Your task to perform on an android device: Go to eBay Image 0: 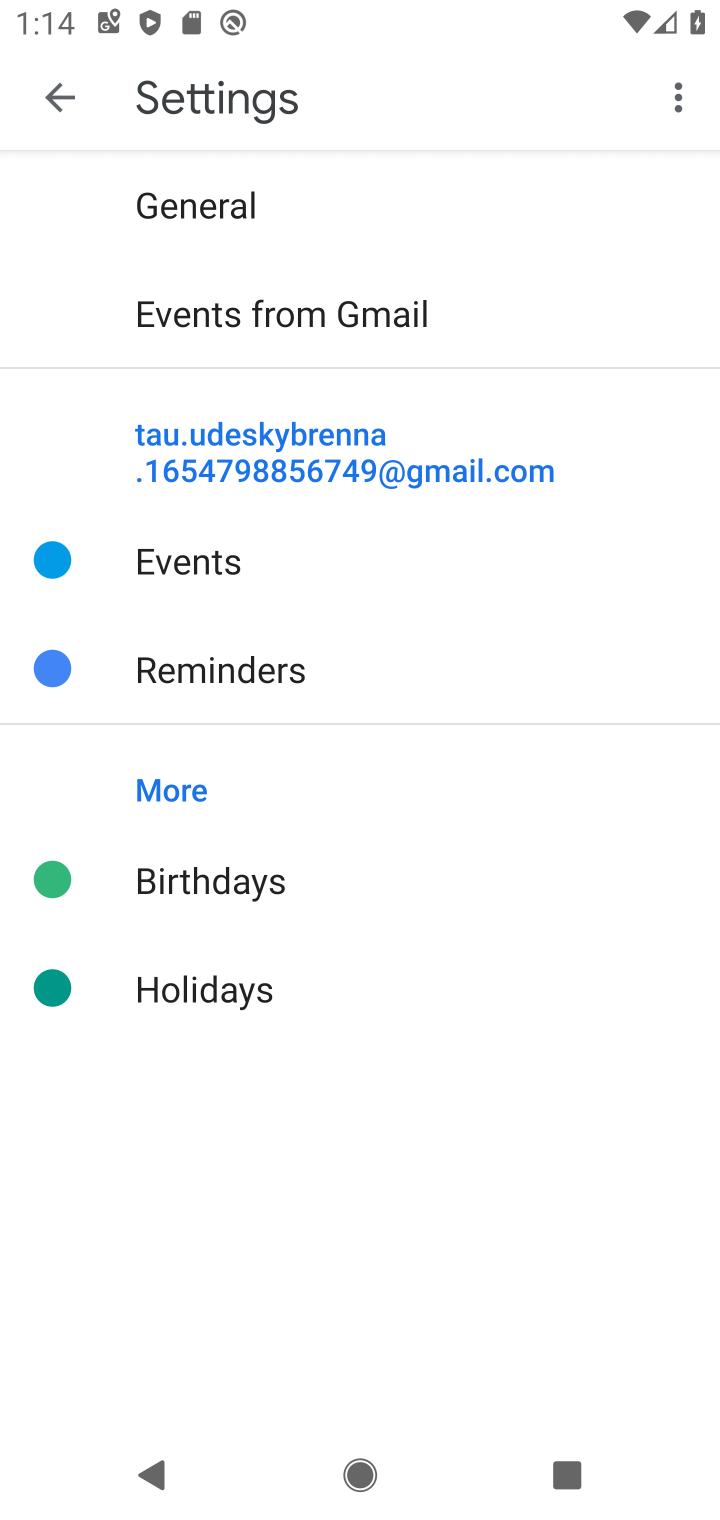
Step 0: press back button
Your task to perform on an android device: Go to eBay Image 1: 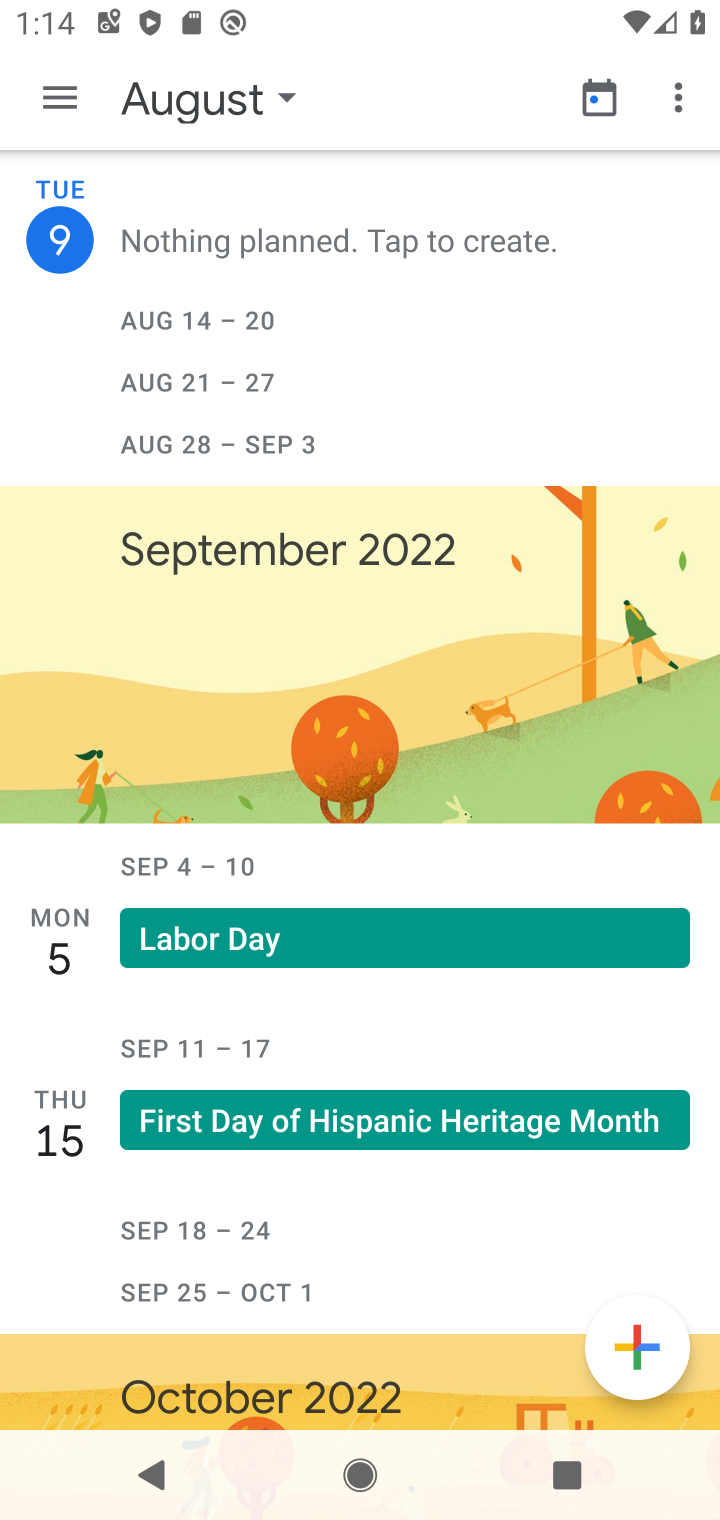
Step 1: press back button
Your task to perform on an android device: Go to eBay Image 2: 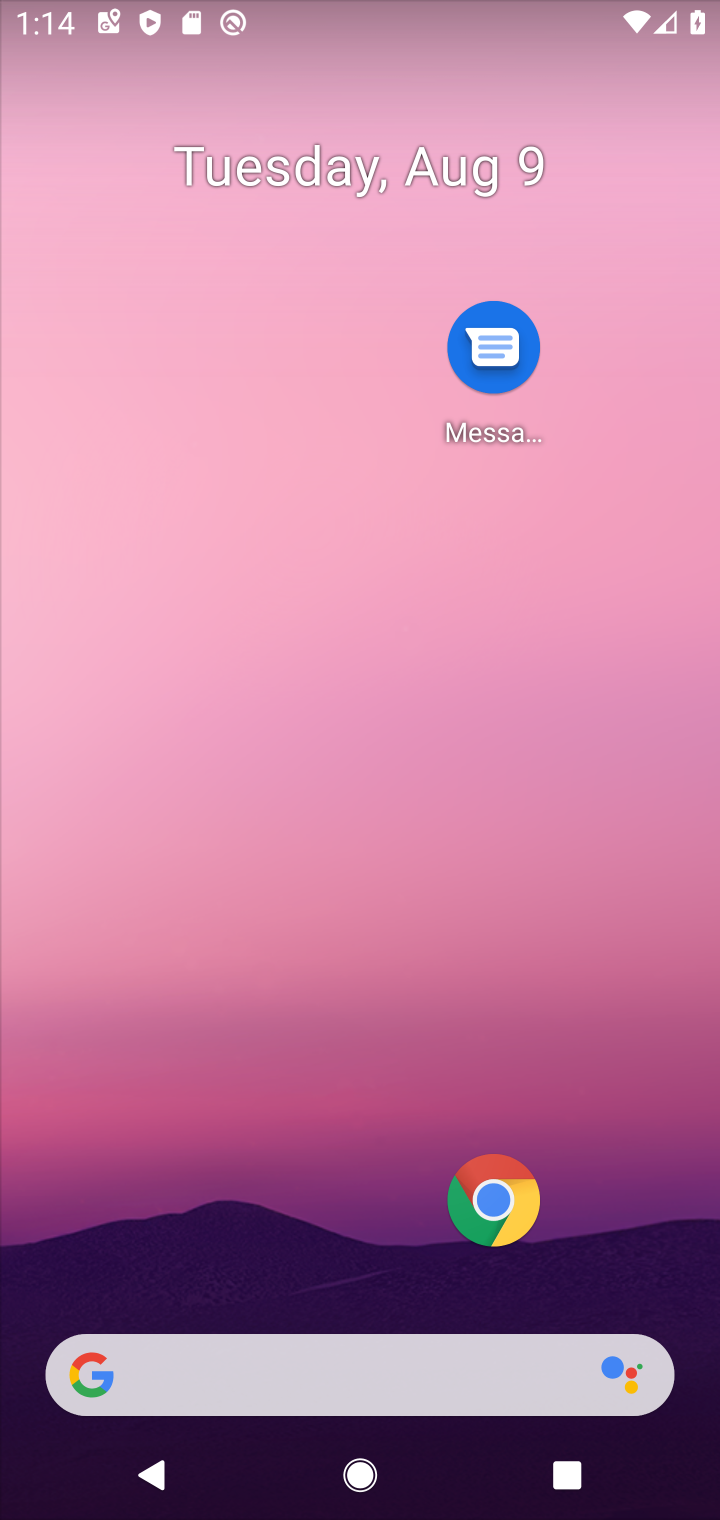
Step 2: click (503, 1203)
Your task to perform on an android device: Go to eBay Image 3: 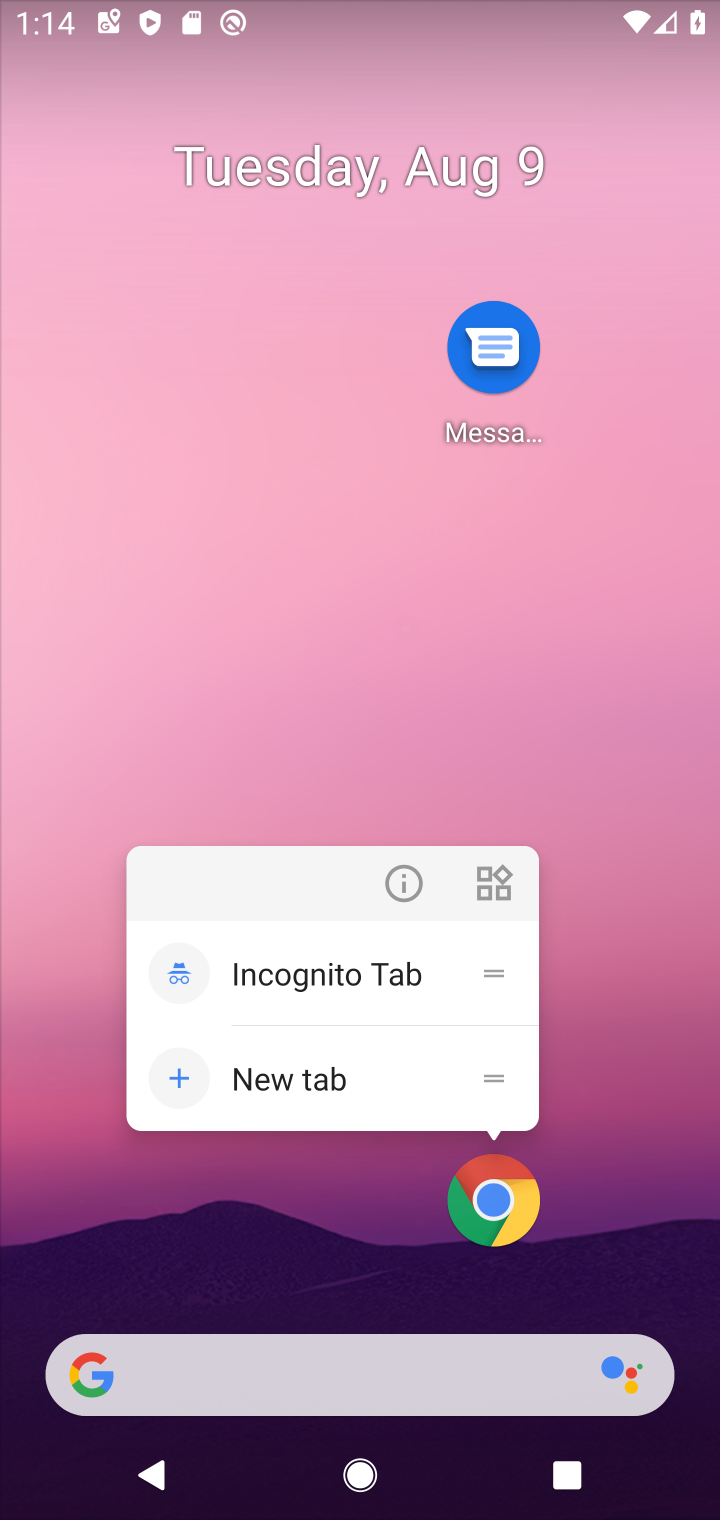
Step 3: click (500, 1179)
Your task to perform on an android device: Go to eBay Image 4: 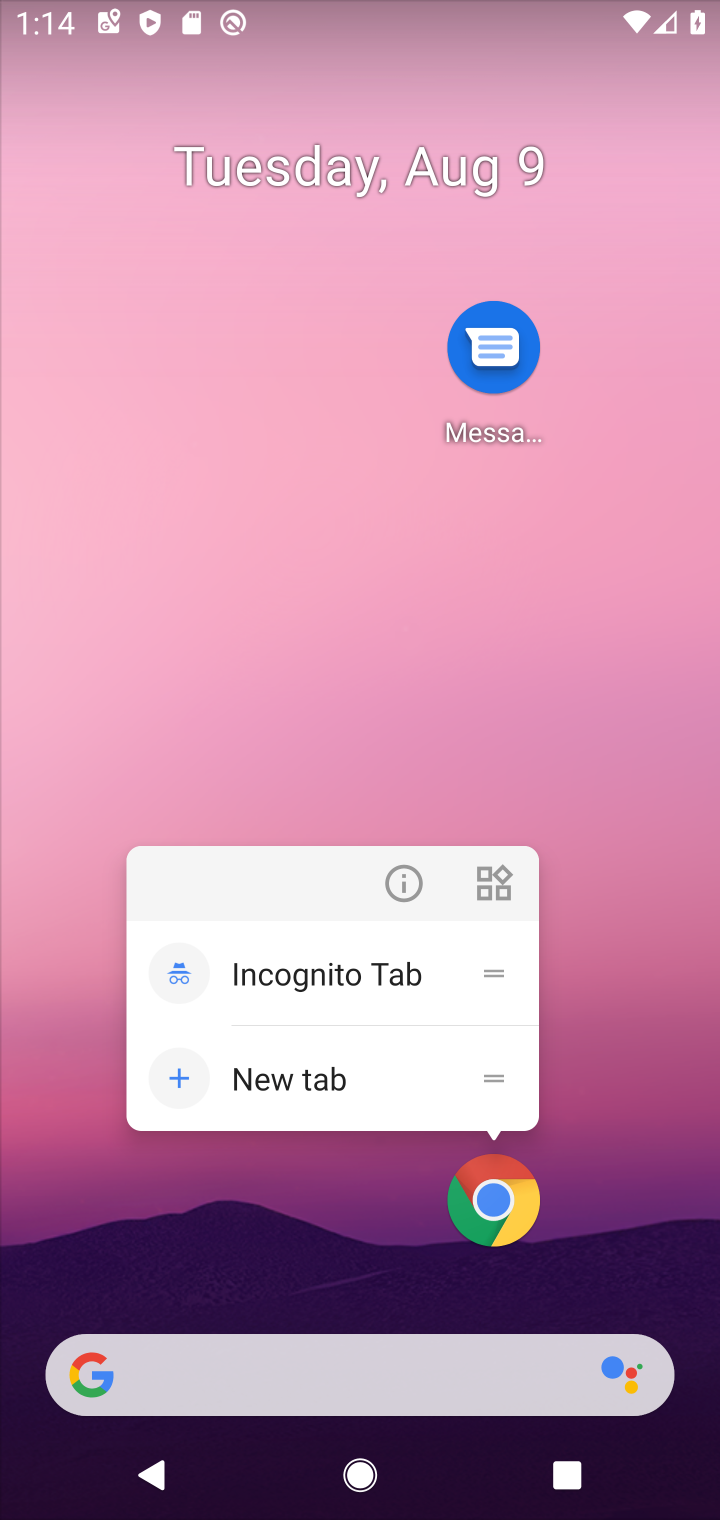
Step 4: click (481, 1198)
Your task to perform on an android device: Go to eBay Image 5: 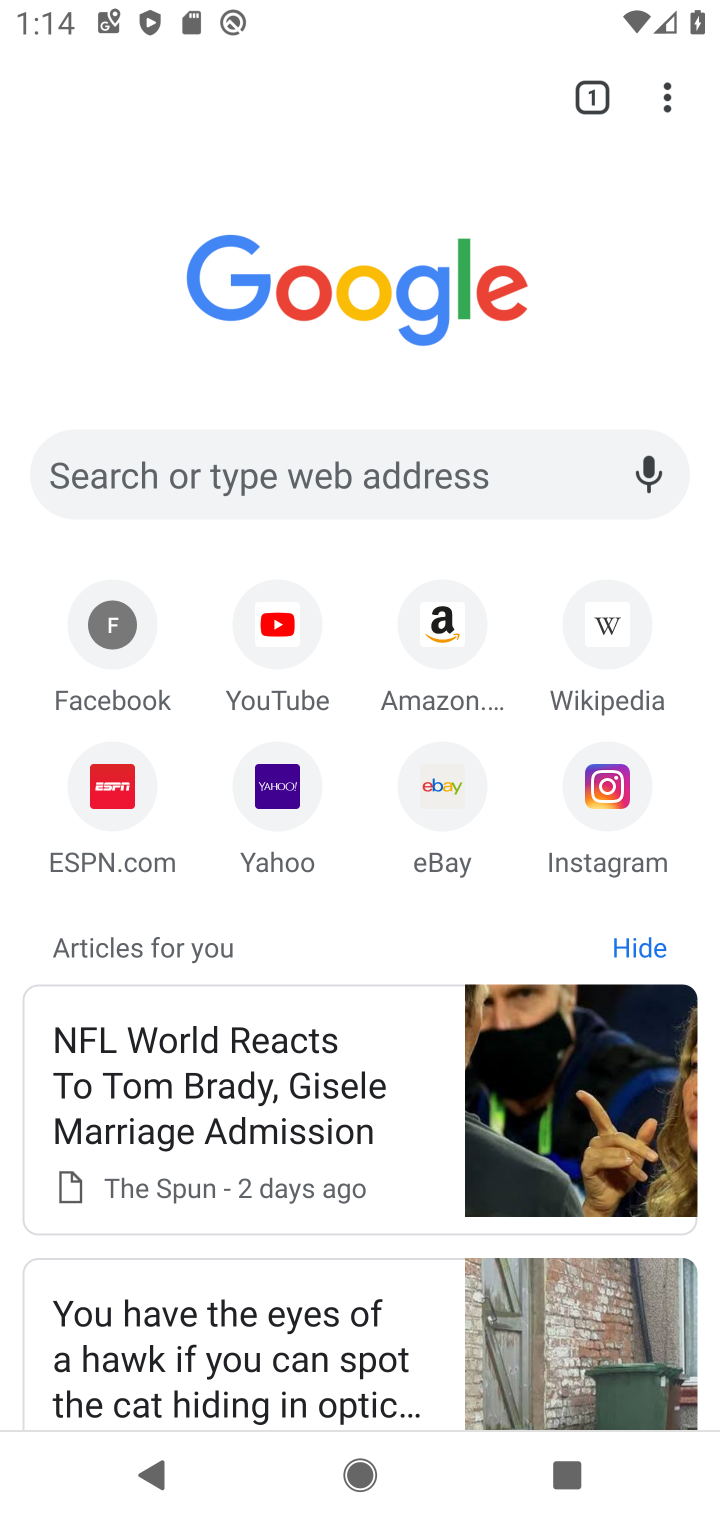
Step 5: click (494, 1202)
Your task to perform on an android device: Go to eBay Image 6: 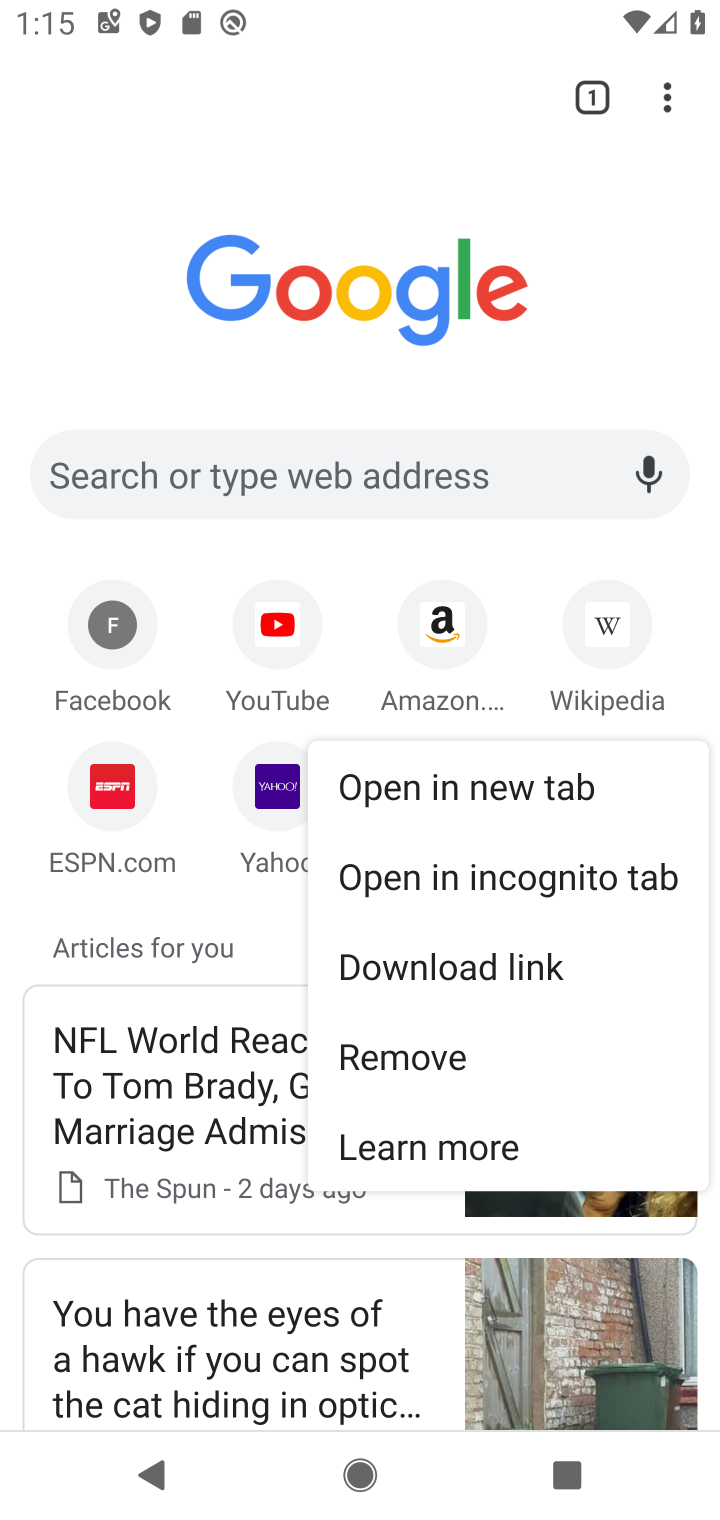
Step 6: click (256, 920)
Your task to perform on an android device: Go to eBay Image 7: 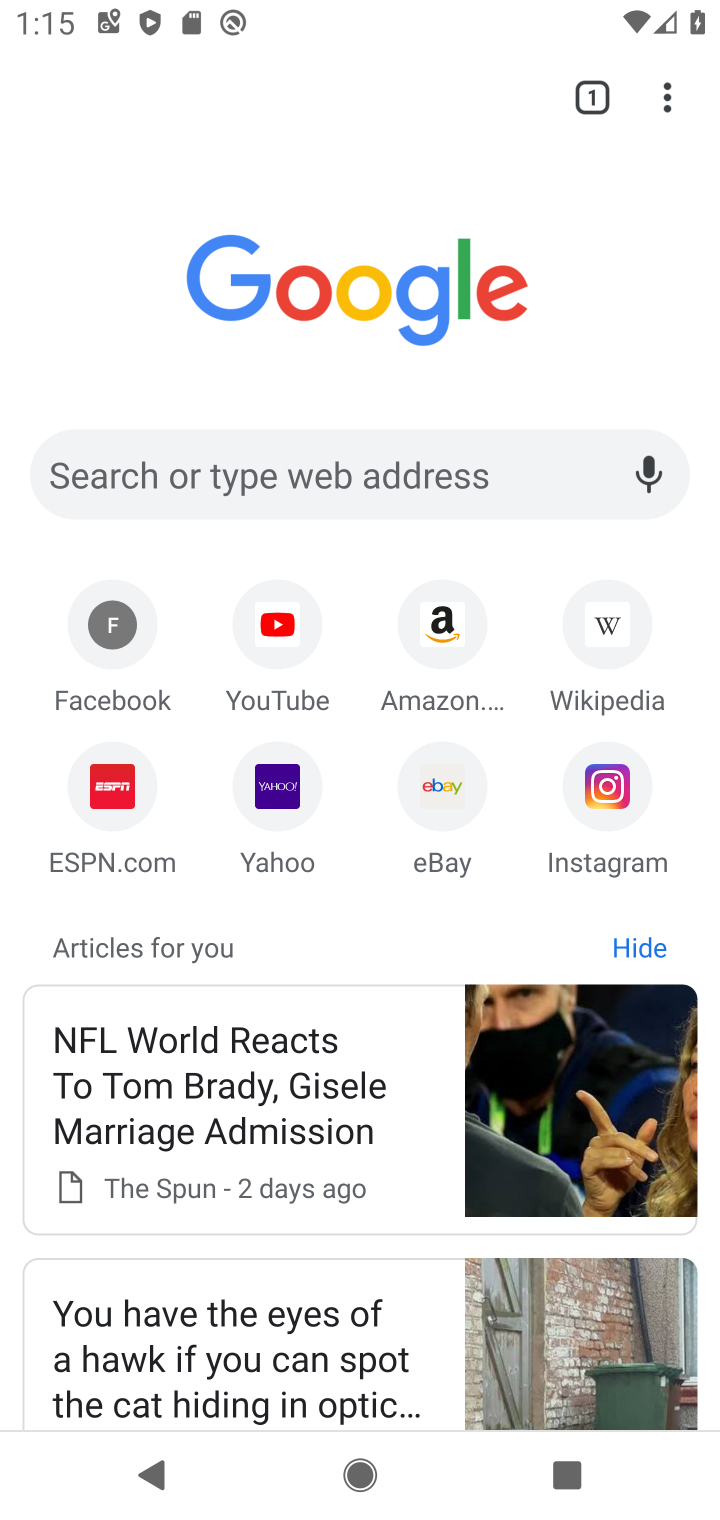
Step 7: click (438, 792)
Your task to perform on an android device: Go to eBay Image 8: 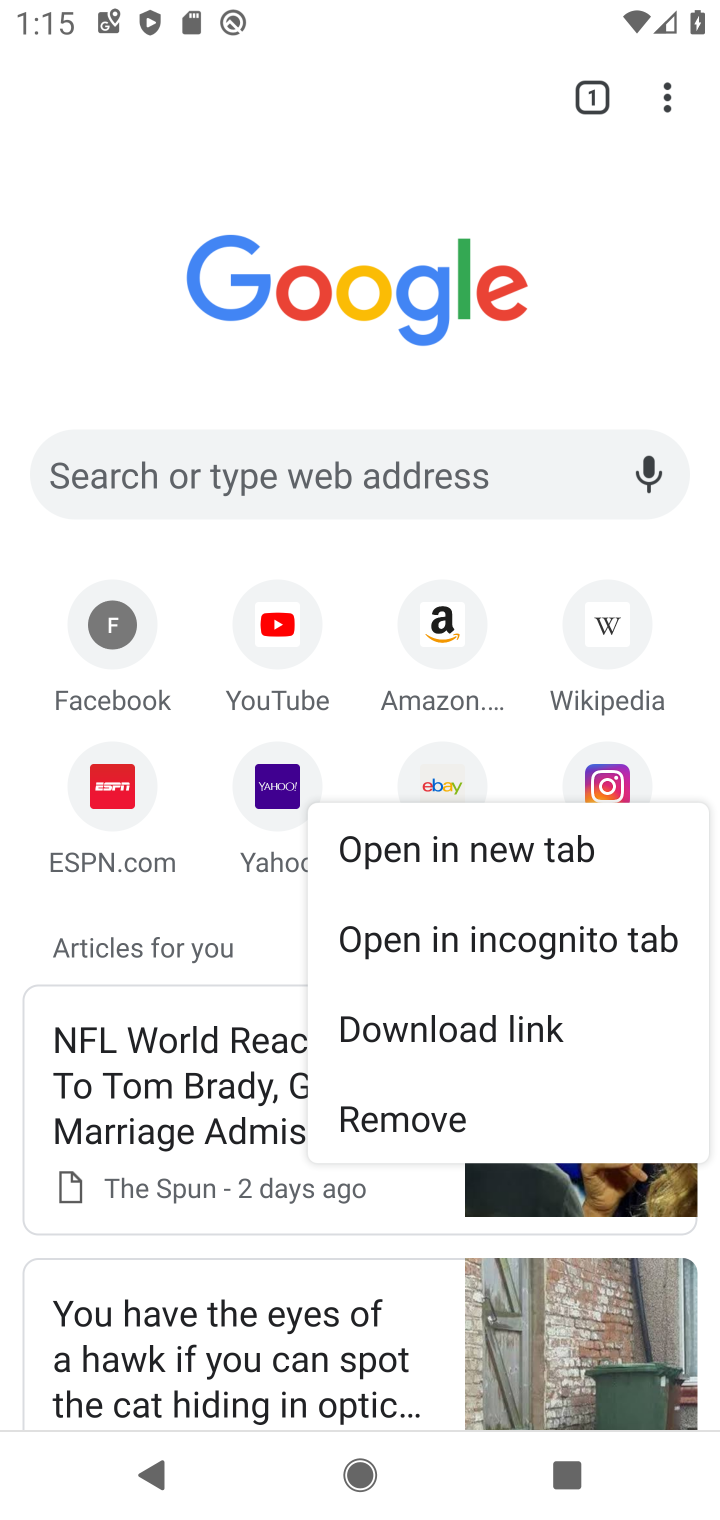
Step 8: click (436, 761)
Your task to perform on an android device: Go to eBay Image 9: 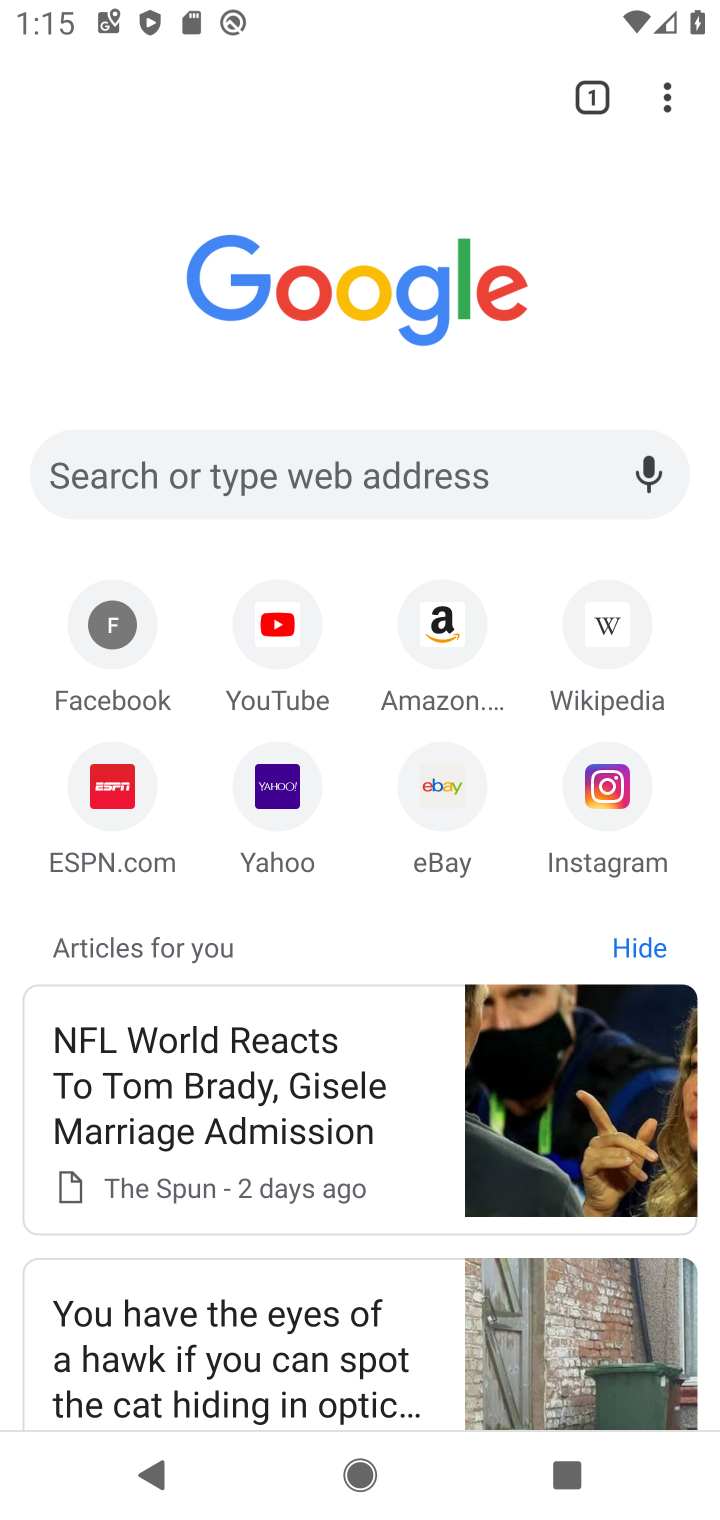
Step 9: click (442, 808)
Your task to perform on an android device: Go to eBay Image 10: 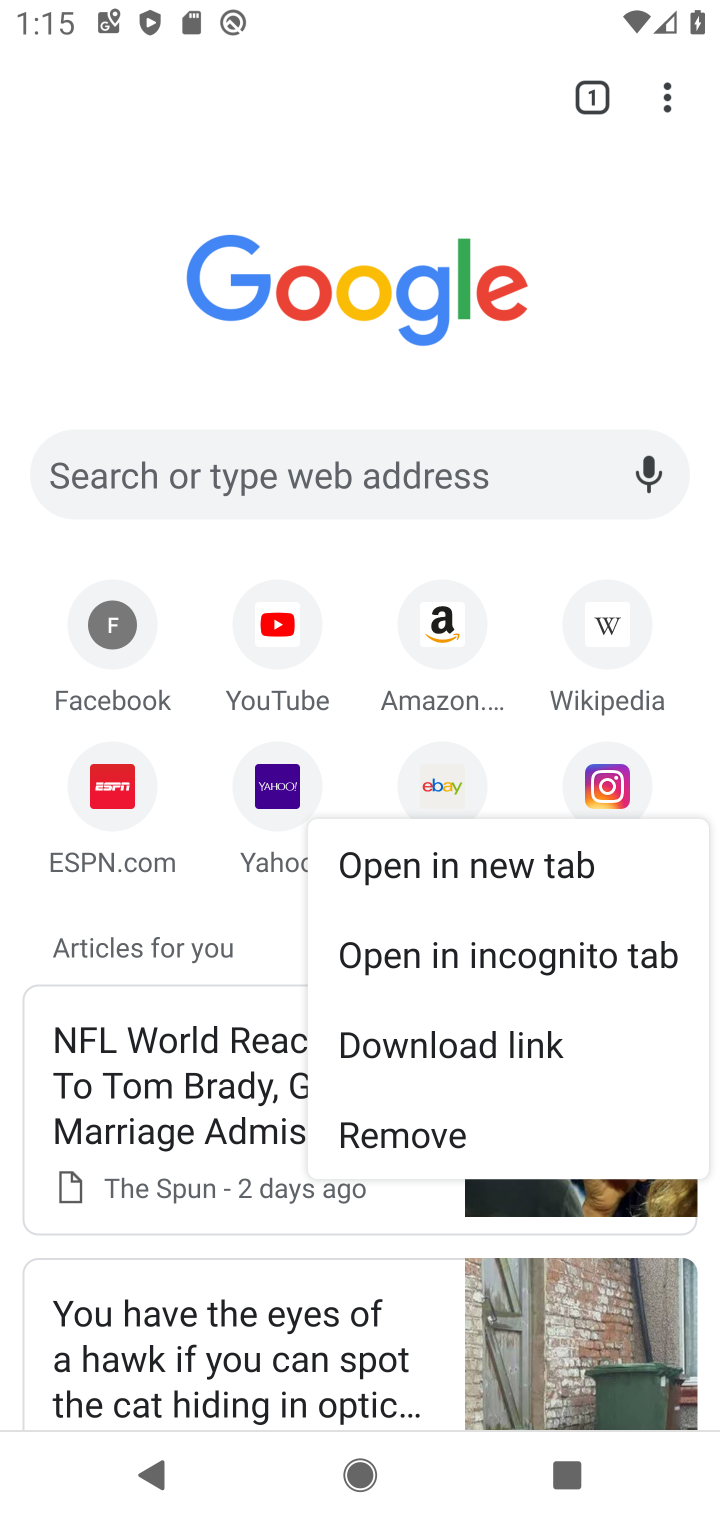
Step 10: click (434, 787)
Your task to perform on an android device: Go to eBay Image 11: 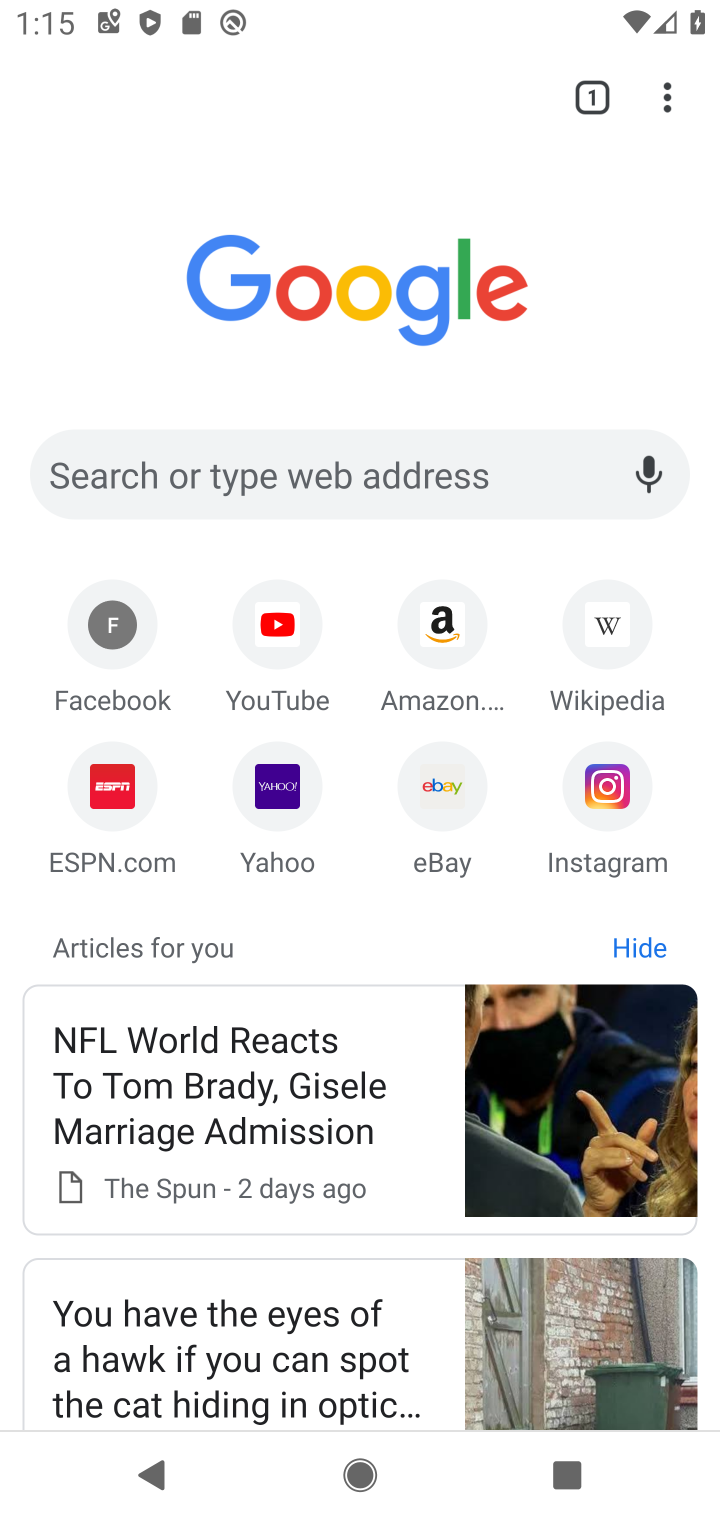
Step 11: click (439, 797)
Your task to perform on an android device: Go to eBay Image 12: 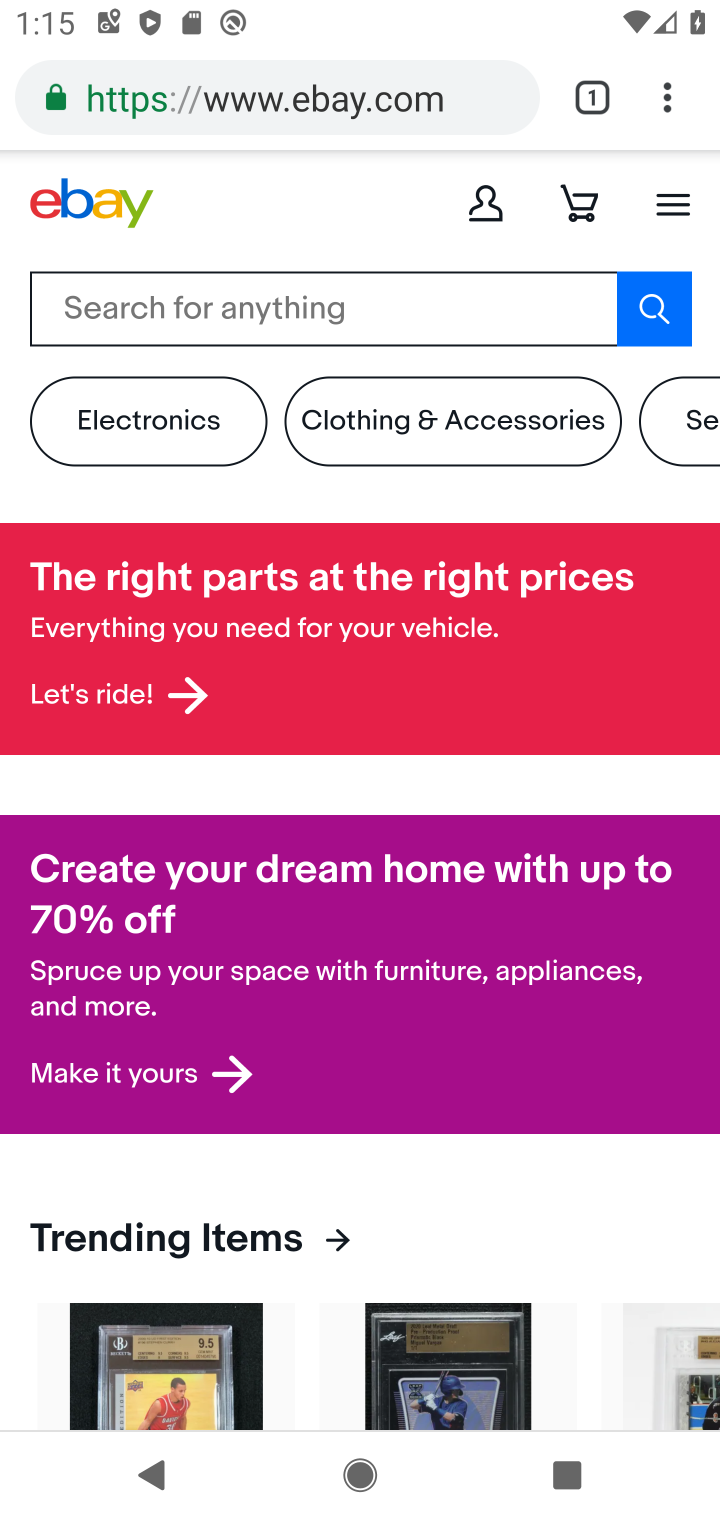
Step 12: task complete